Your task to perform on an android device: set the stopwatch Image 0: 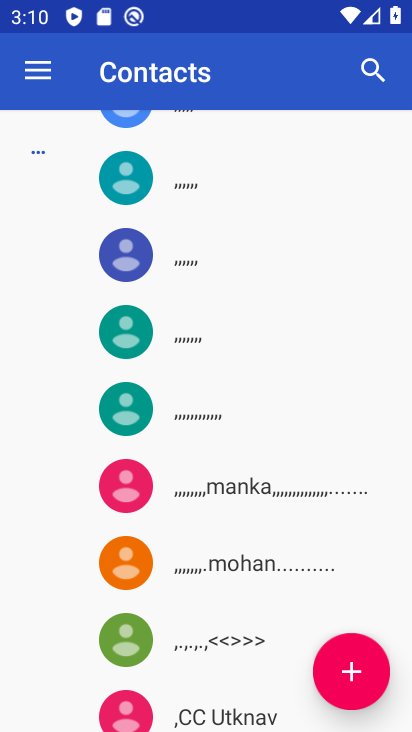
Step 0: press home button
Your task to perform on an android device: set the stopwatch Image 1: 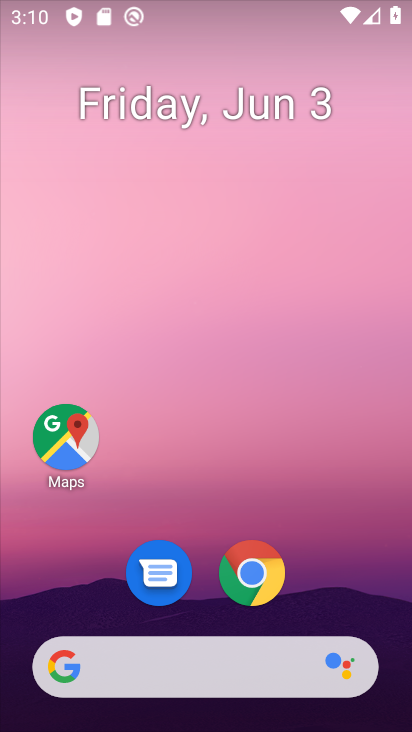
Step 1: drag from (400, 694) to (407, 24)
Your task to perform on an android device: set the stopwatch Image 2: 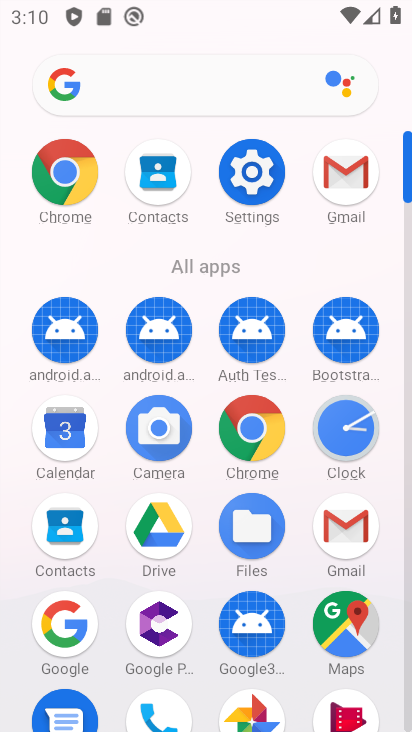
Step 2: click (335, 442)
Your task to perform on an android device: set the stopwatch Image 3: 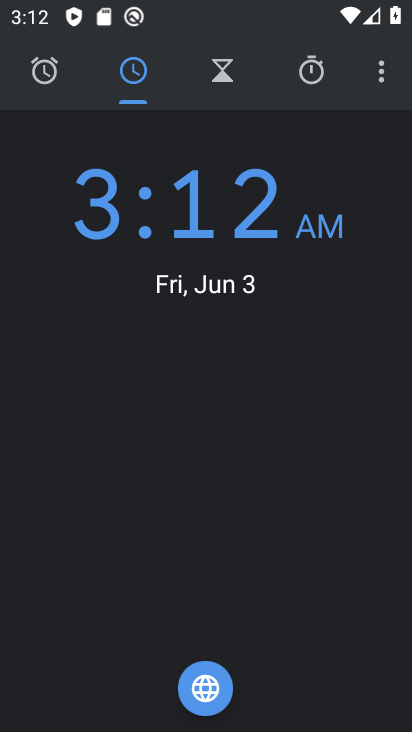
Step 3: click (312, 75)
Your task to perform on an android device: set the stopwatch Image 4: 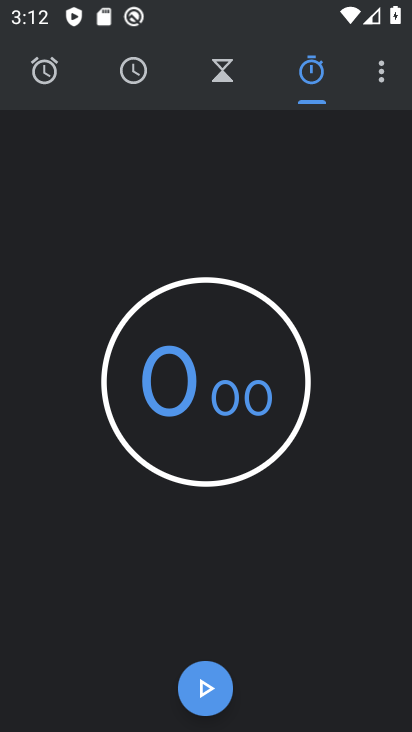
Step 4: click (382, 73)
Your task to perform on an android device: set the stopwatch Image 5: 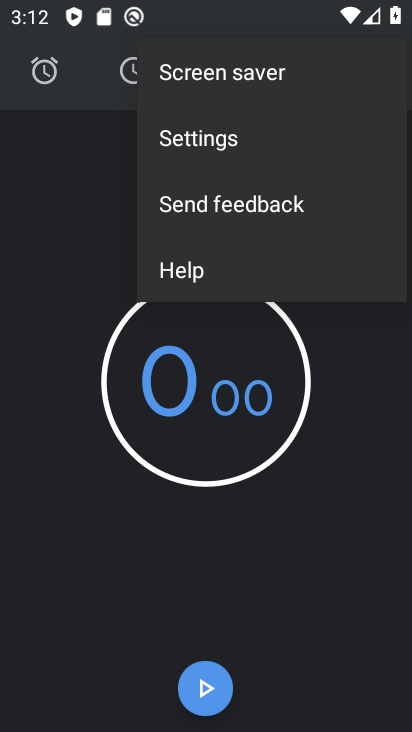
Step 5: click (214, 673)
Your task to perform on an android device: set the stopwatch Image 6: 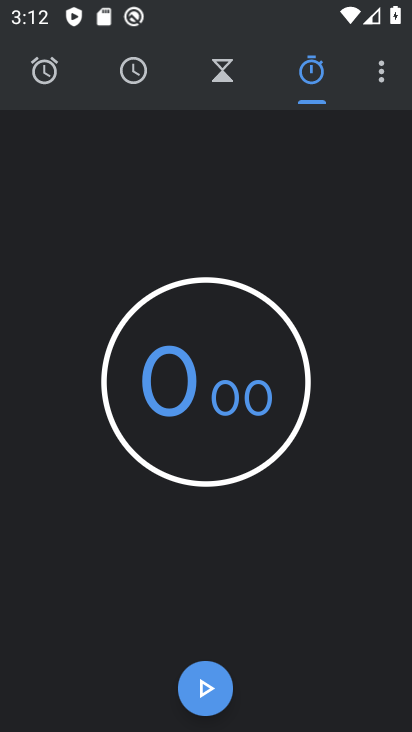
Step 6: click (229, 75)
Your task to perform on an android device: set the stopwatch Image 7: 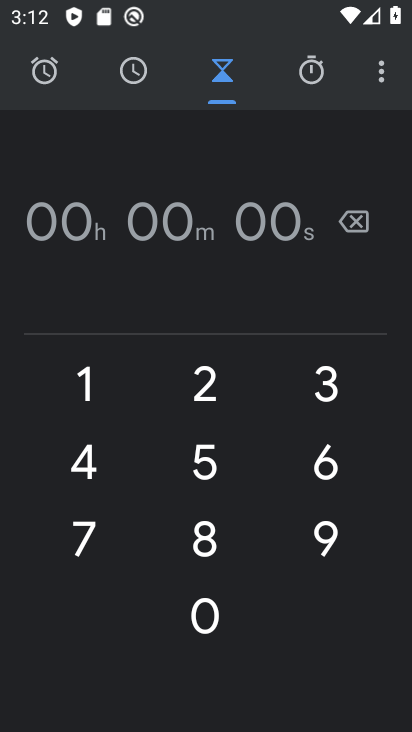
Step 7: click (200, 608)
Your task to perform on an android device: set the stopwatch Image 8: 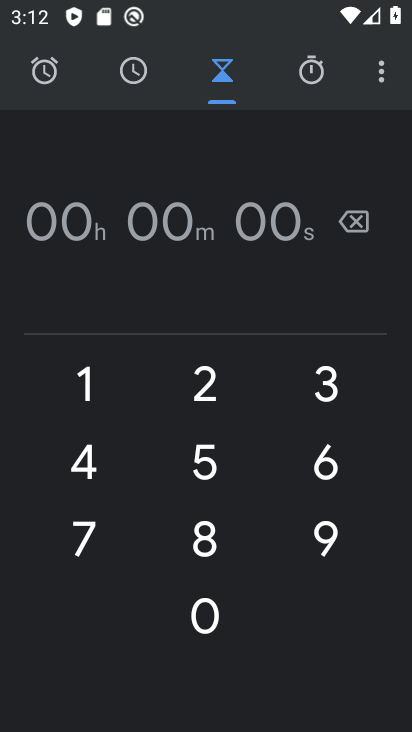
Step 8: click (190, 628)
Your task to perform on an android device: set the stopwatch Image 9: 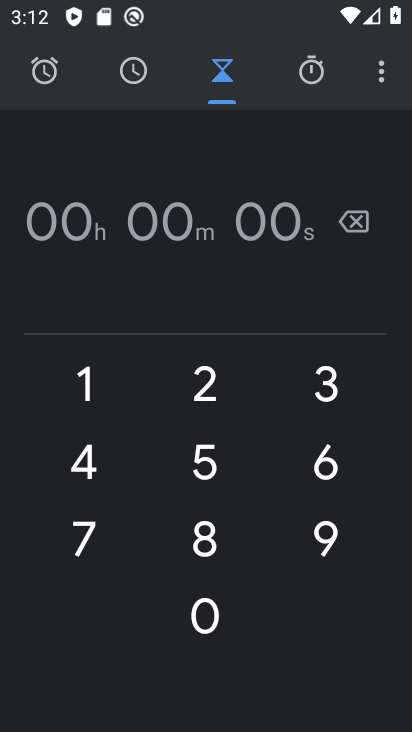
Step 9: click (286, 220)
Your task to perform on an android device: set the stopwatch Image 10: 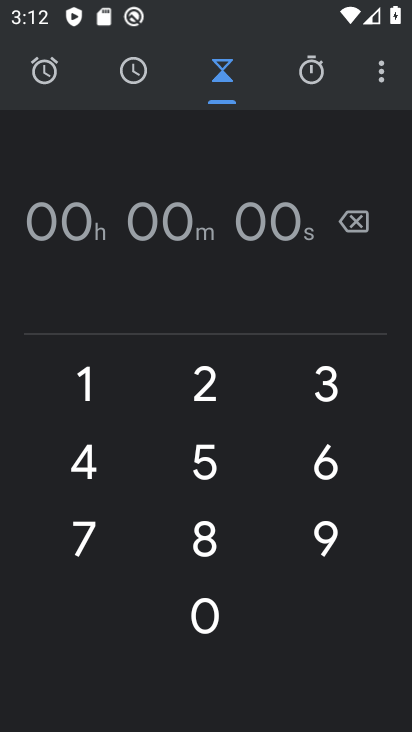
Step 10: click (201, 608)
Your task to perform on an android device: set the stopwatch Image 11: 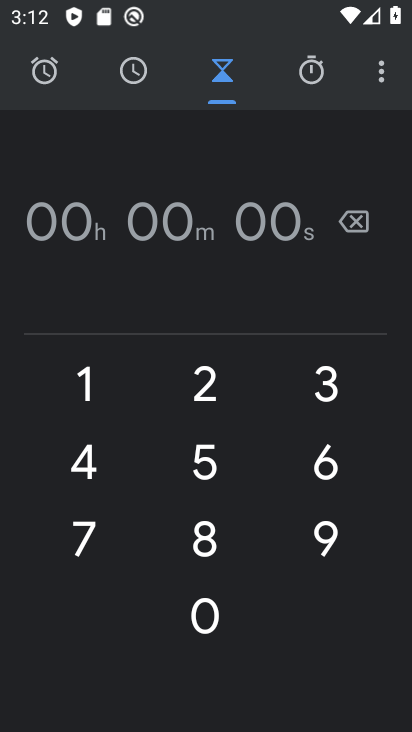
Step 11: click (201, 608)
Your task to perform on an android device: set the stopwatch Image 12: 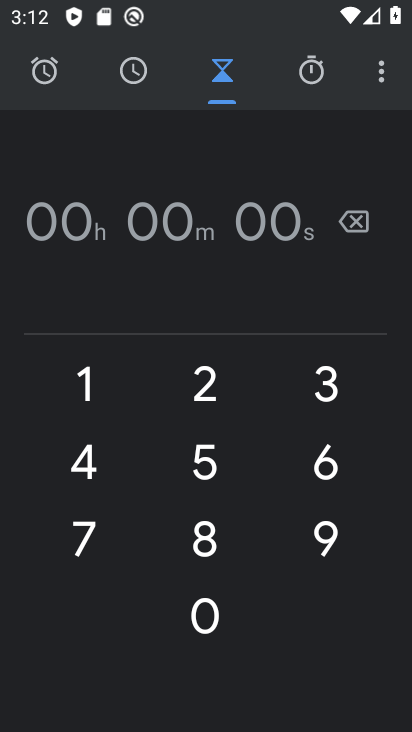
Step 12: click (172, 223)
Your task to perform on an android device: set the stopwatch Image 13: 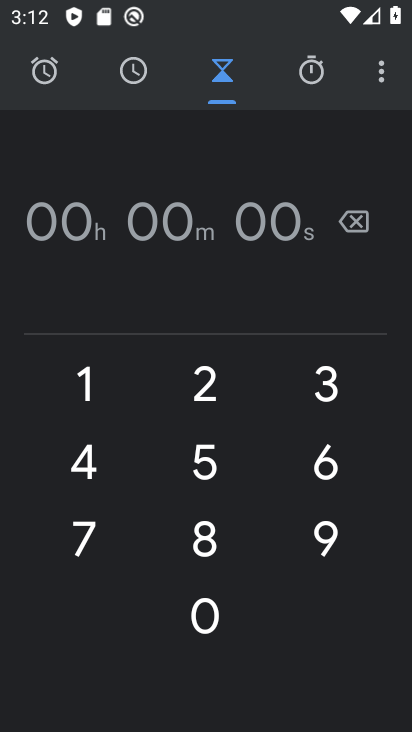
Step 13: click (85, 382)
Your task to perform on an android device: set the stopwatch Image 14: 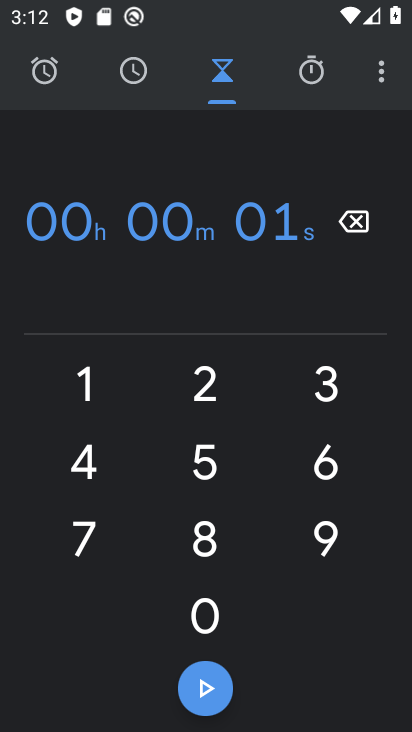
Step 14: click (85, 382)
Your task to perform on an android device: set the stopwatch Image 15: 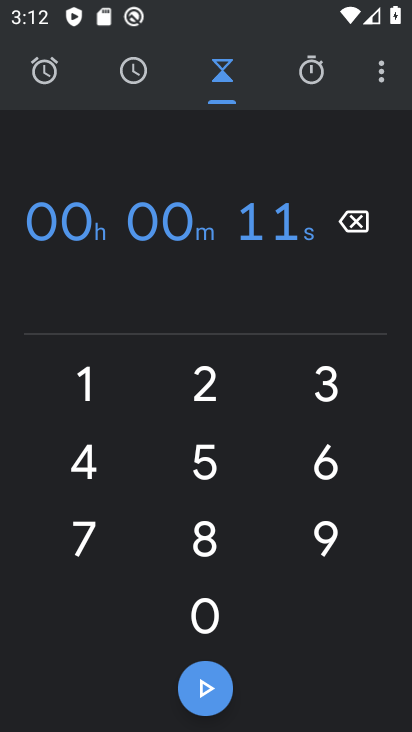
Step 15: click (215, 674)
Your task to perform on an android device: set the stopwatch Image 16: 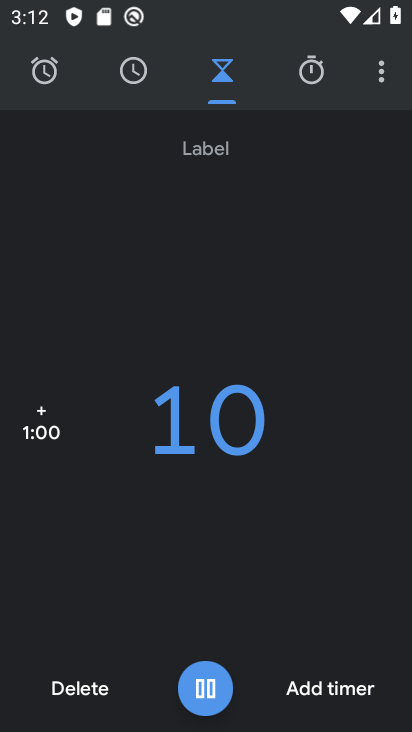
Step 16: task complete